Your task to perform on an android device: Go to battery settings Image 0: 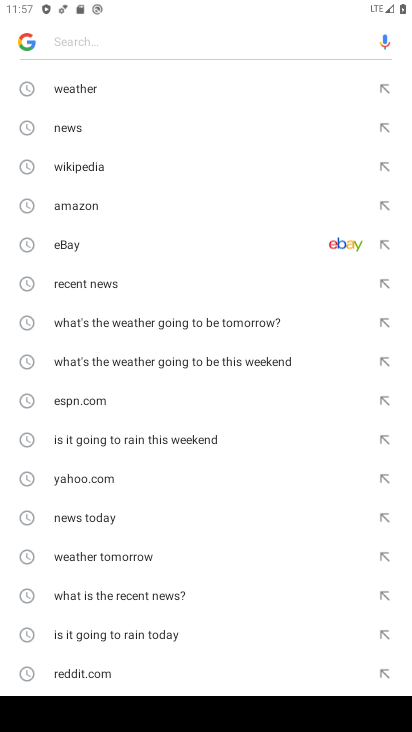
Step 0: press home button
Your task to perform on an android device: Go to battery settings Image 1: 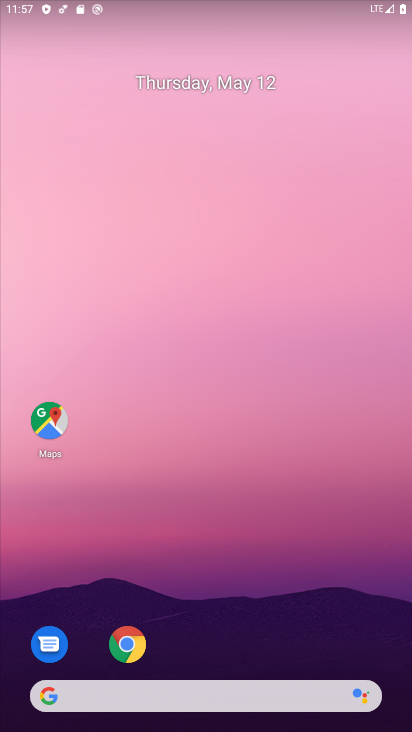
Step 1: drag from (320, 611) to (195, 91)
Your task to perform on an android device: Go to battery settings Image 2: 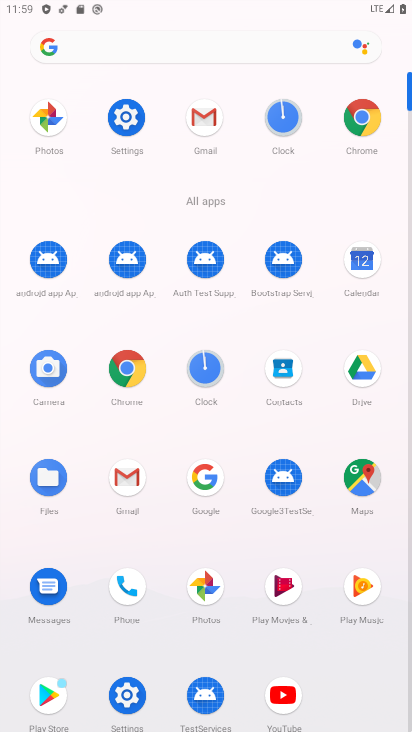
Step 2: click (123, 691)
Your task to perform on an android device: Go to battery settings Image 3: 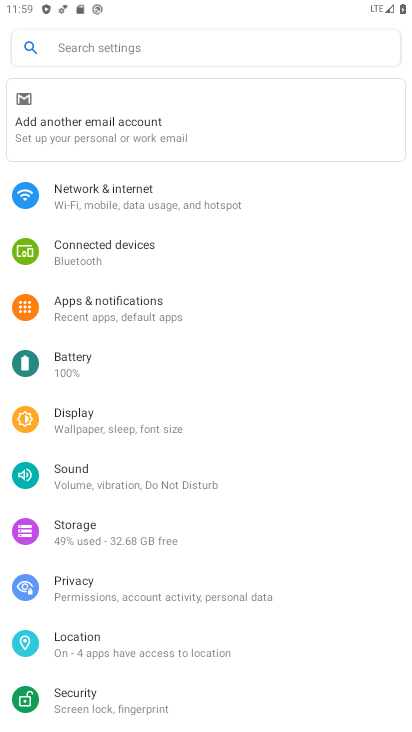
Step 3: click (102, 370)
Your task to perform on an android device: Go to battery settings Image 4: 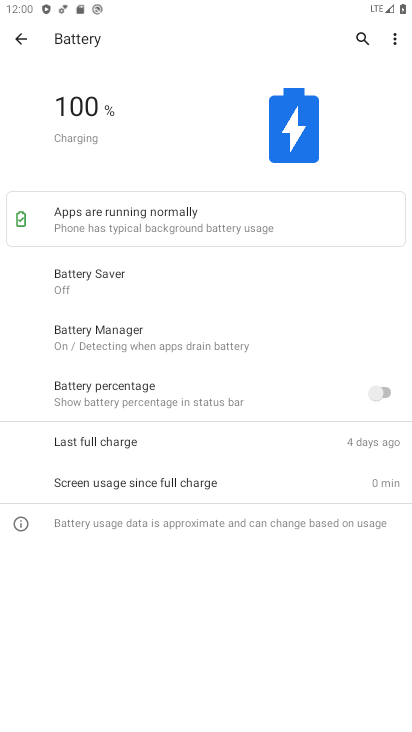
Step 4: task complete